Your task to perform on an android device: Search for vegetarian restaurants on Maps Image 0: 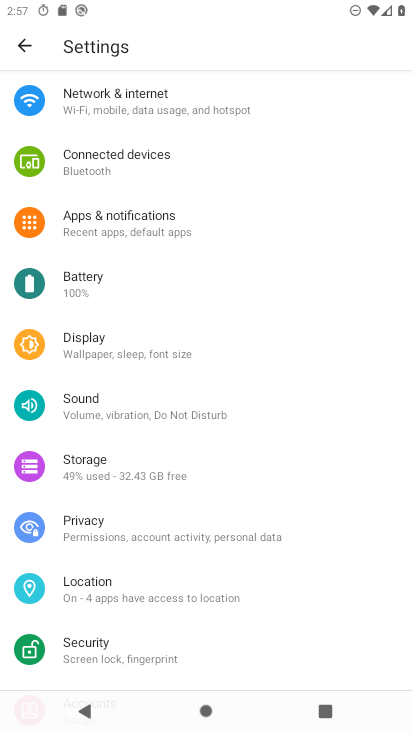
Step 0: press home button
Your task to perform on an android device: Search for vegetarian restaurants on Maps Image 1: 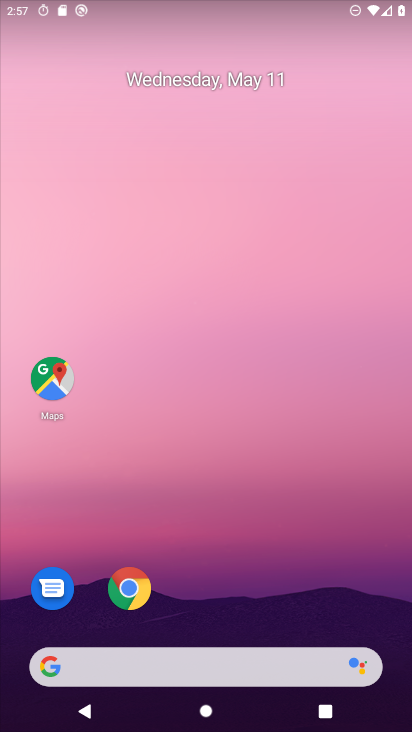
Step 1: drag from (254, 439) to (293, 39)
Your task to perform on an android device: Search for vegetarian restaurants on Maps Image 2: 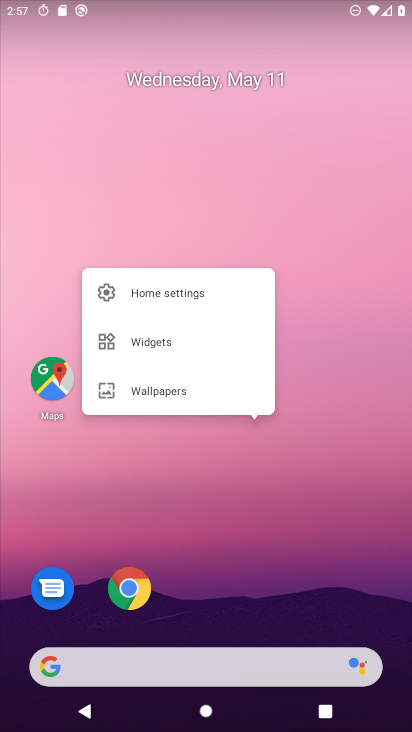
Step 2: click (40, 372)
Your task to perform on an android device: Search for vegetarian restaurants on Maps Image 3: 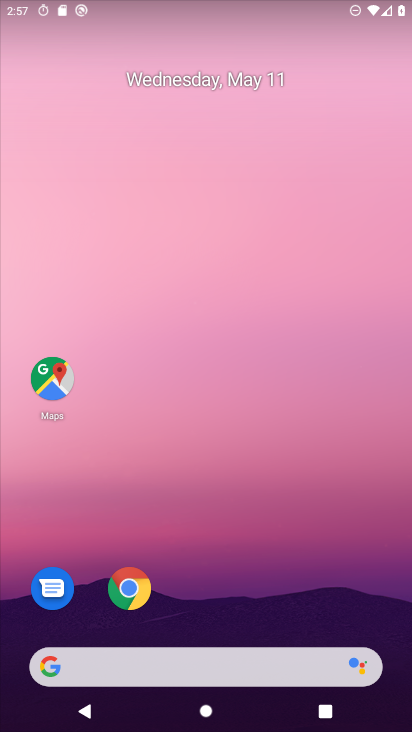
Step 3: click (57, 388)
Your task to perform on an android device: Search for vegetarian restaurants on Maps Image 4: 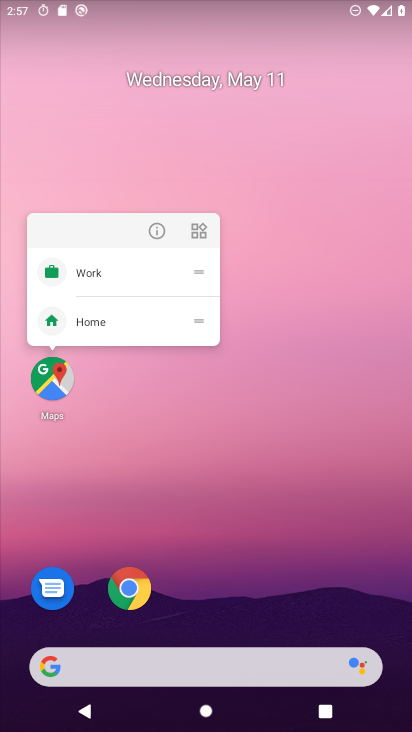
Step 4: click (41, 372)
Your task to perform on an android device: Search for vegetarian restaurants on Maps Image 5: 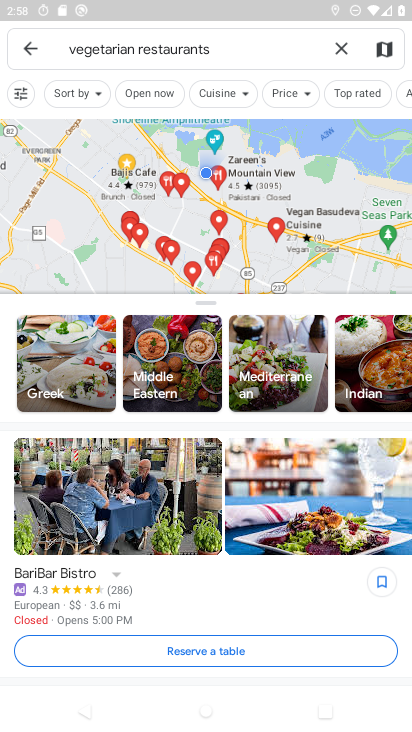
Step 5: task complete